Your task to perform on an android device: Go to notification settings Image 0: 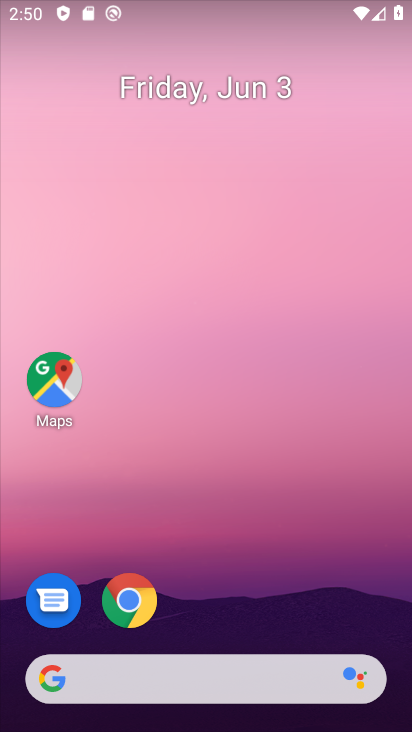
Step 0: drag from (302, 625) to (292, 144)
Your task to perform on an android device: Go to notification settings Image 1: 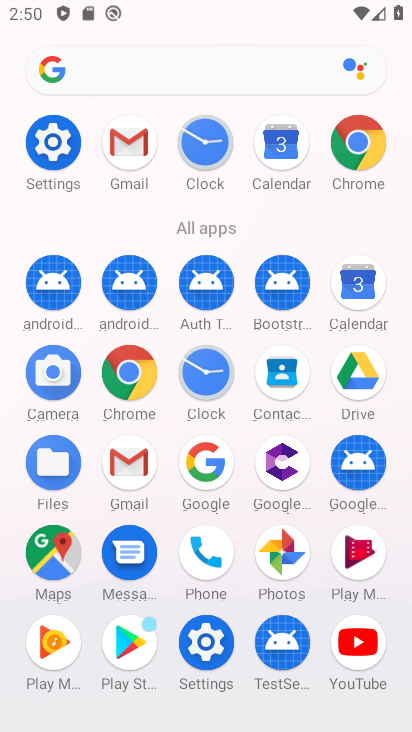
Step 1: click (65, 143)
Your task to perform on an android device: Go to notification settings Image 2: 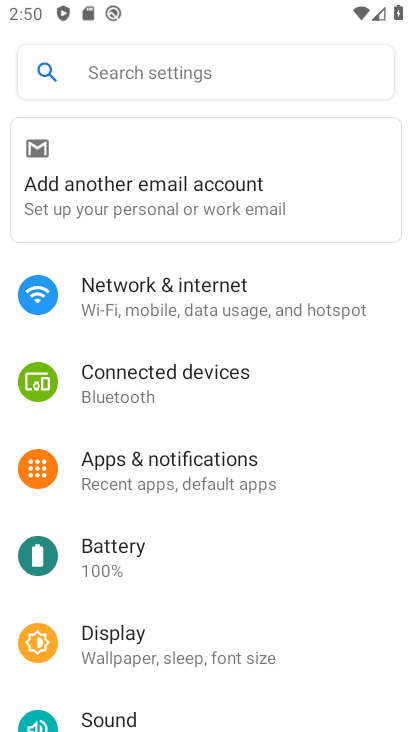
Step 2: click (143, 490)
Your task to perform on an android device: Go to notification settings Image 3: 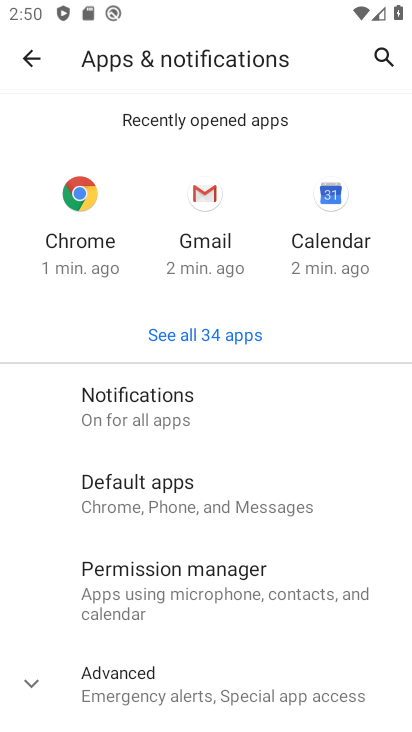
Step 3: click (164, 411)
Your task to perform on an android device: Go to notification settings Image 4: 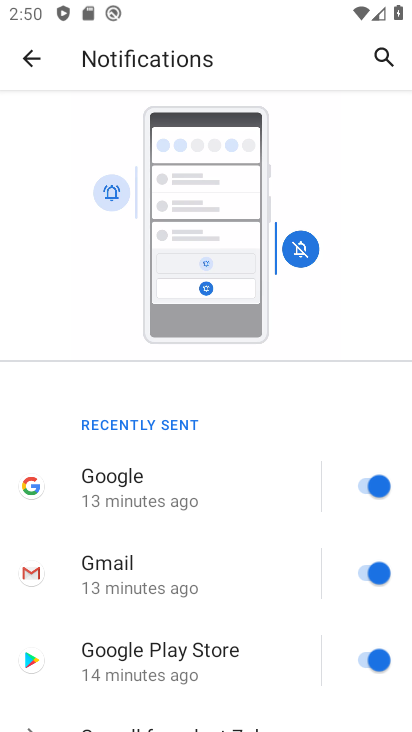
Step 4: task complete